Your task to perform on an android device: change keyboard looks Image 0: 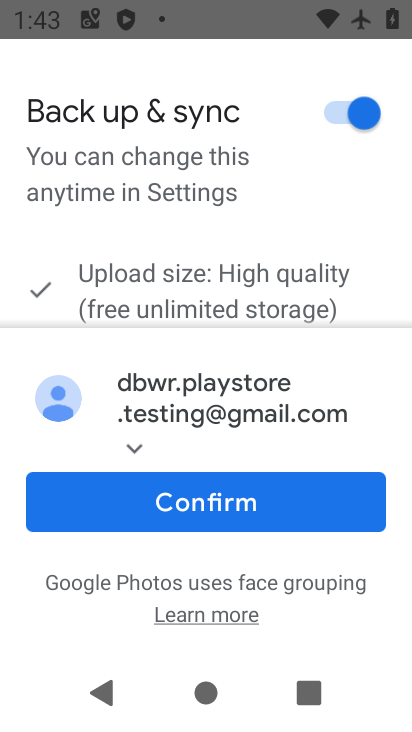
Step 0: press home button
Your task to perform on an android device: change keyboard looks Image 1: 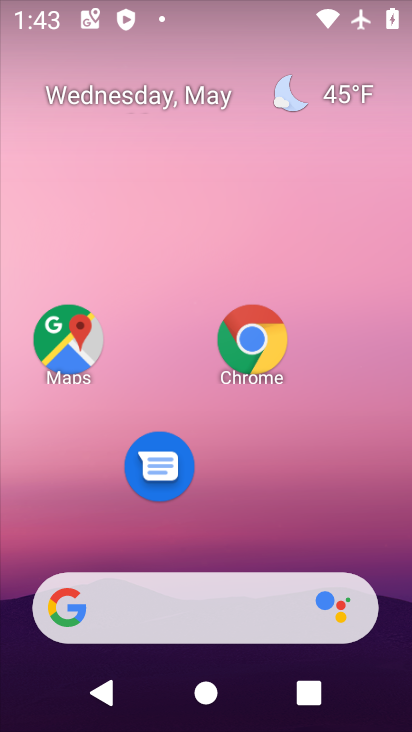
Step 1: drag from (190, 605) to (308, 229)
Your task to perform on an android device: change keyboard looks Image 2: 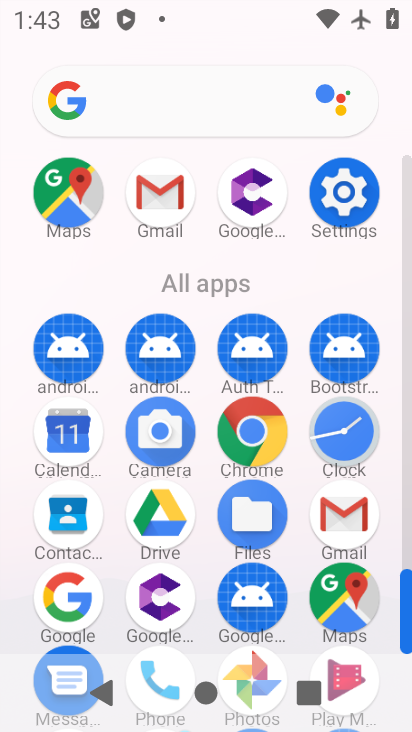
Step 2: click (349, 194)
Your task to perform on an android device: change keyboard looks Image 3: 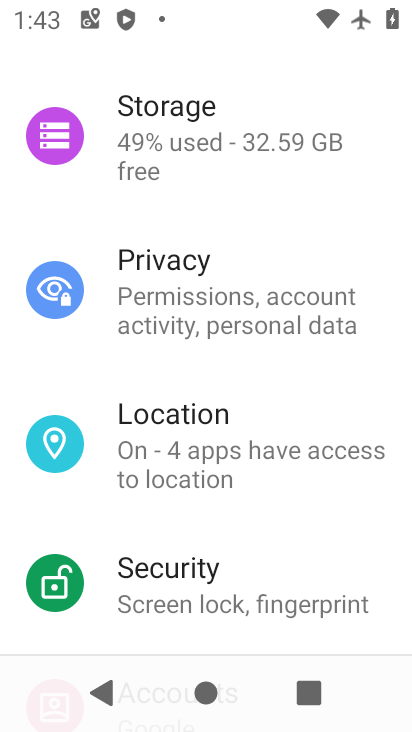
Step 3: drag from (225, 585) to (367, 65)
Your task to perform on an android device: change keyboard looks Image 4: 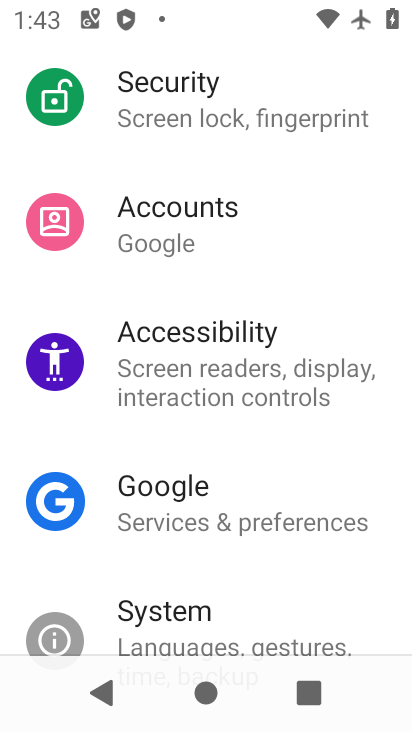
Step 4: drag from (223, 584) to (352, 138)
Your task to perform on an android device: change keyboard looks Image 5: 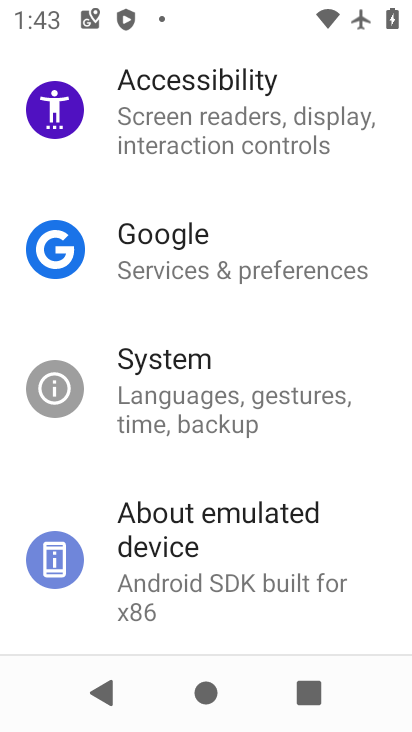
Step 5: click (217, 394)
Your task to perform on an android device: change keyboard looks Image 6: 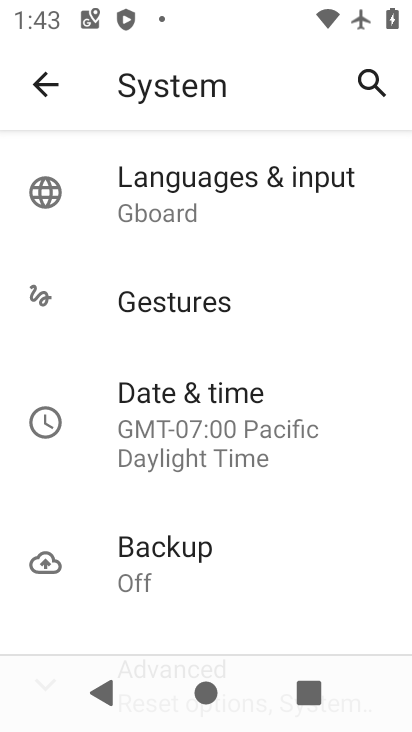
Step 6: click (181, 190)
Your task to perform on an android device: change keyboard looks Image 7: 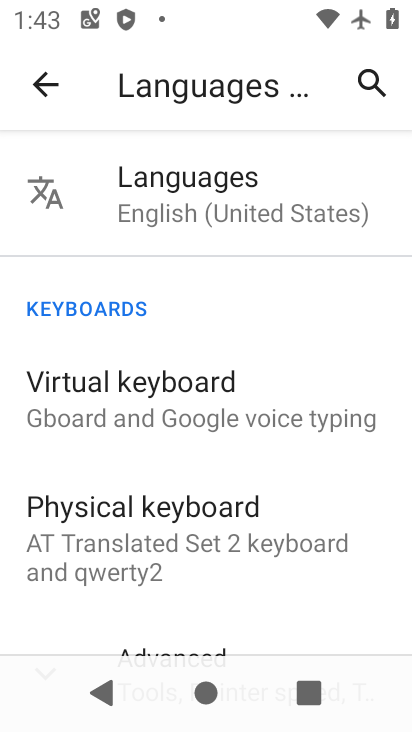
Step 7: click (184, 384)
Your task to perform on an android device: change keyboard looks Image 8: 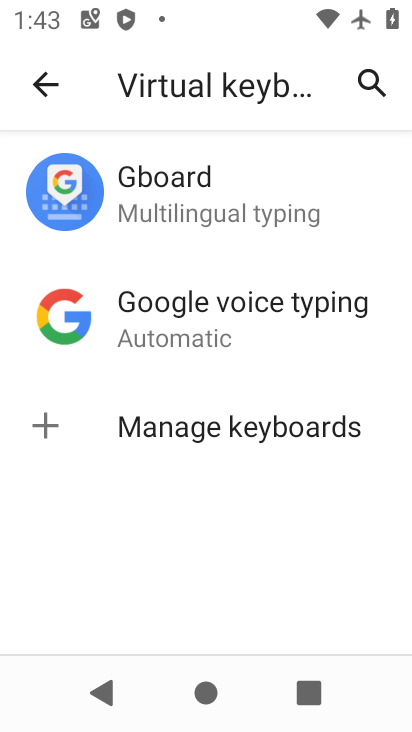
Step 8: click (174, 174)
Your task to perform on an android device: change keyboard looks Image 9: 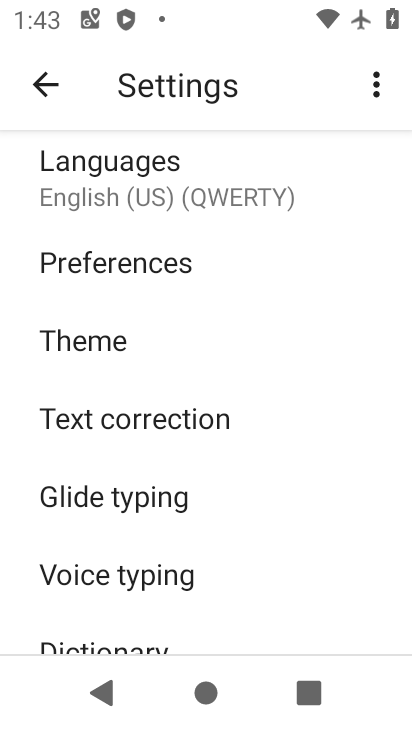
Step 9: click (111, 337)
Your task to perform on an android device: change keyboard looks Image 10: 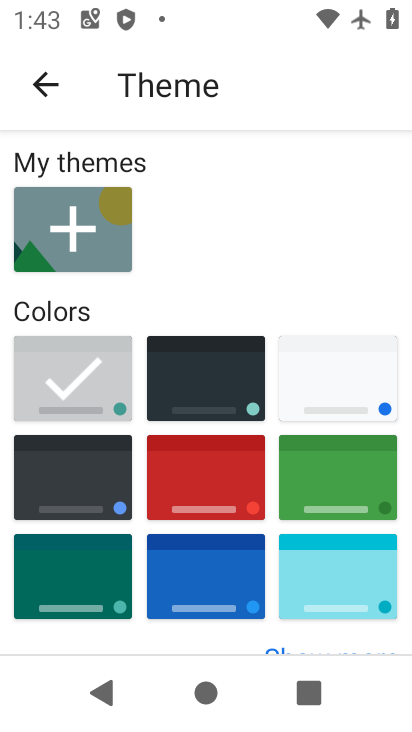
Step 10: click (235, 560)
Your task to perform on an android device: change keyboard looks Image 11: 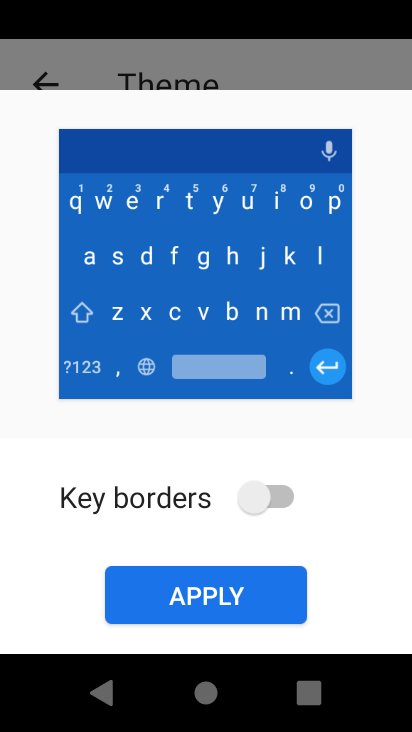
Step 11: click (218, 609)
Your task to perform on an android device: change keyboard looks Image 12: 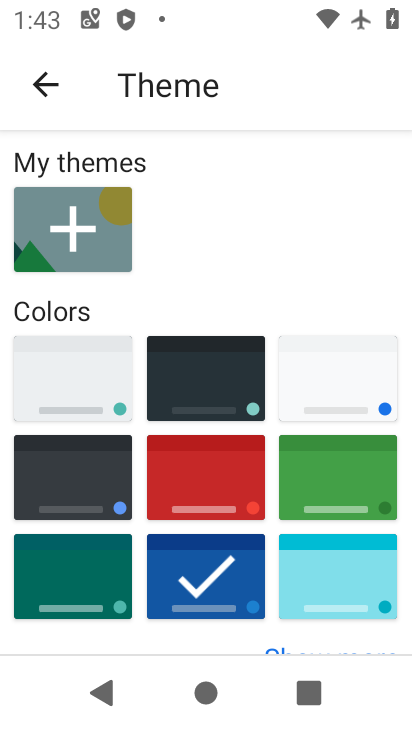
Step 12: task complete